Your task to perform on an android device: Open accessibility settings Image 0: 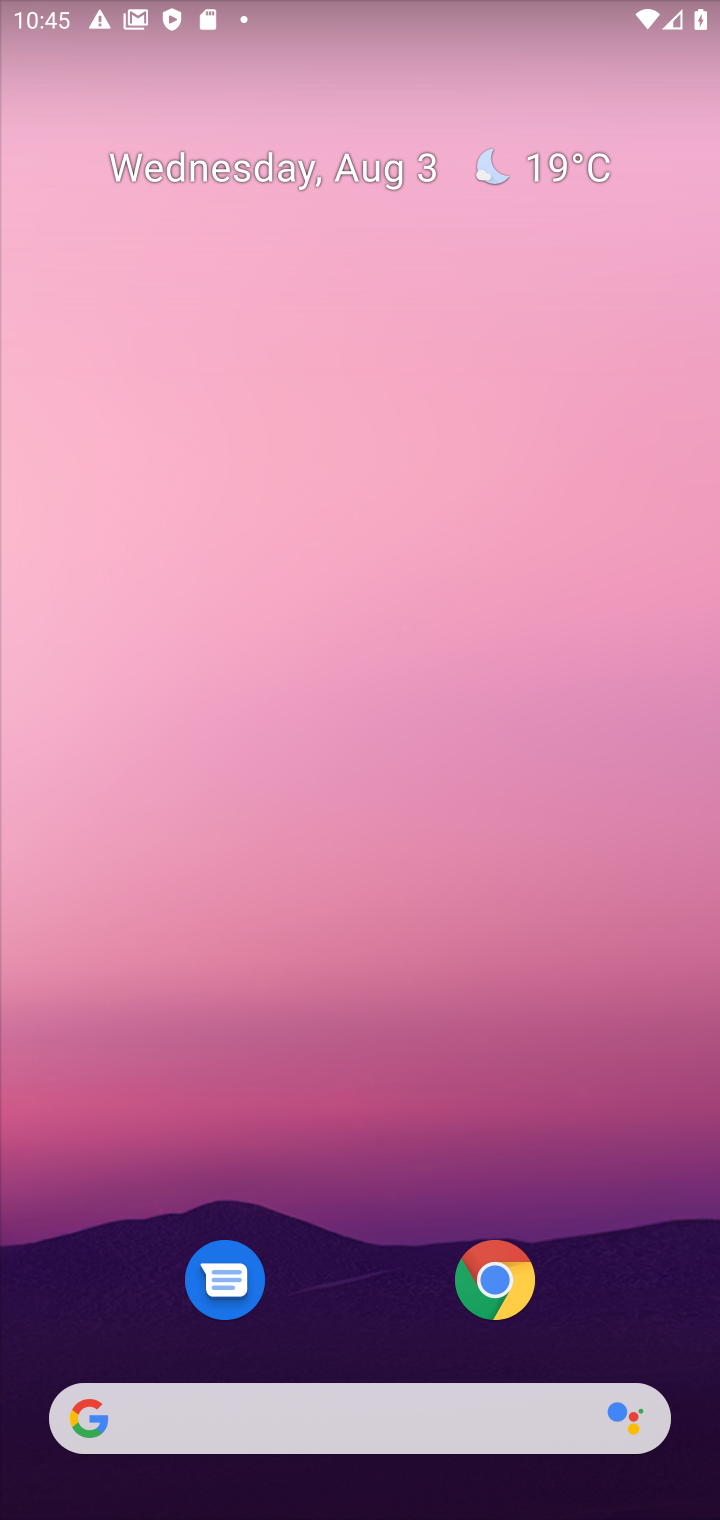
Step 0: drag from (352, 1115) to (473, 255)
Your task to perform on an android device: Open accessibility settings Image 1: 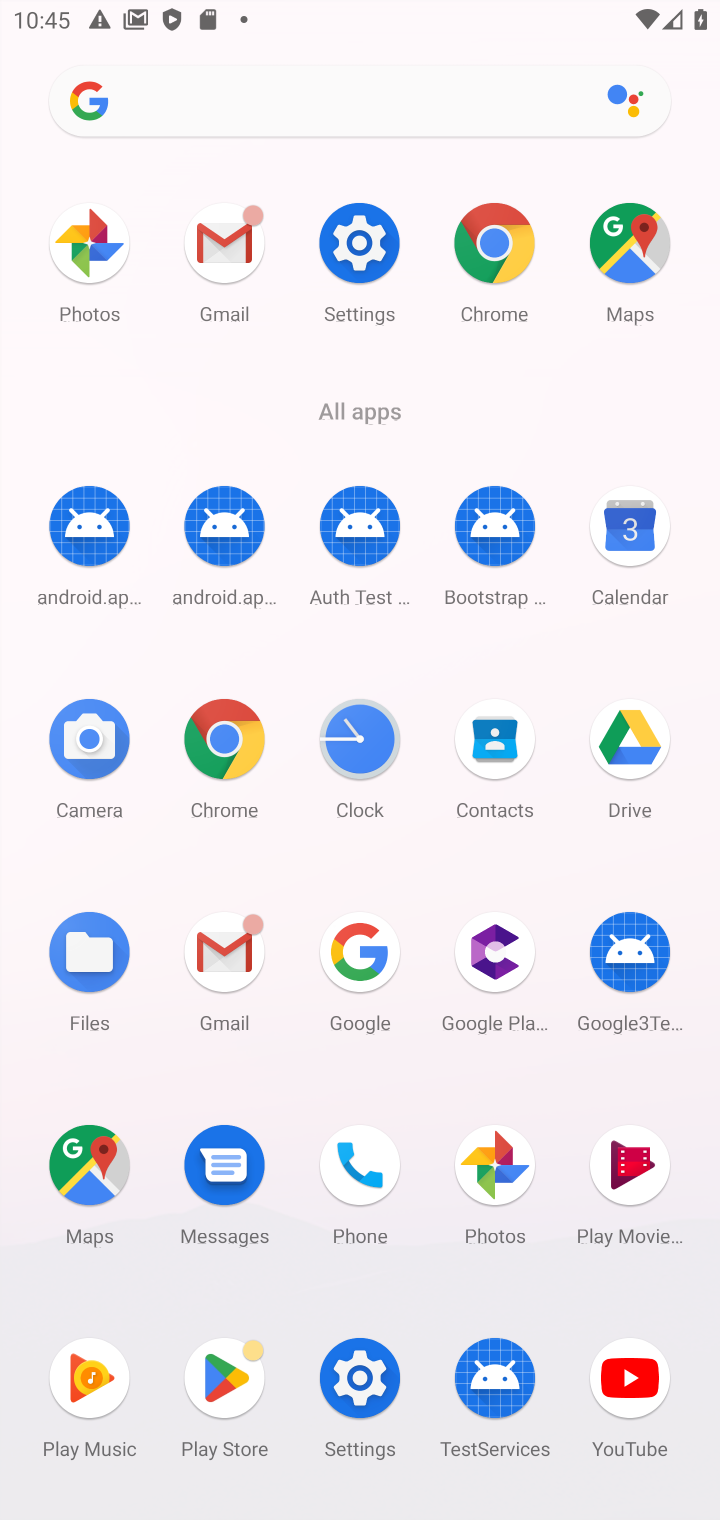
Step 1: click (377, 237)
Your task to perform on an android device: Open accessibility settings Image 2: 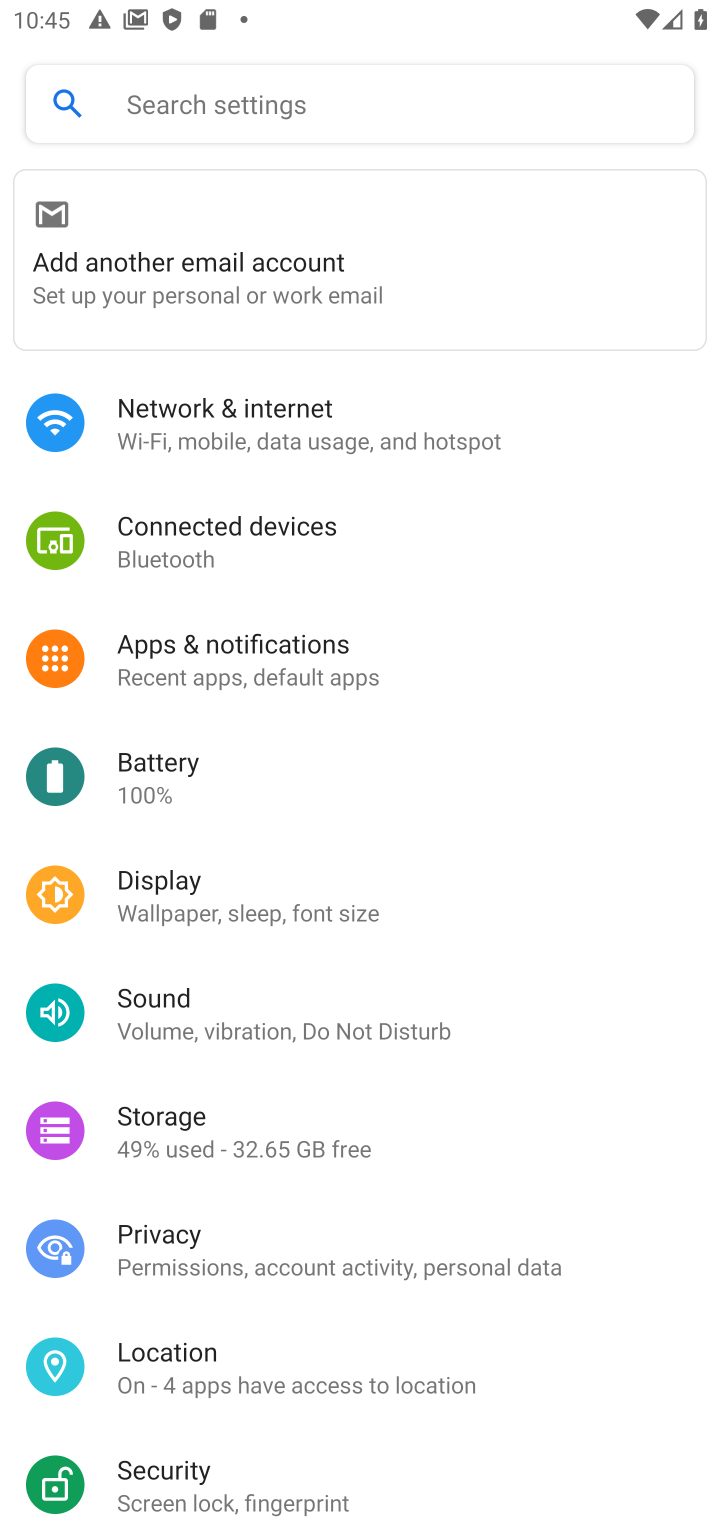
Step 2: drag from (284, 1317) to (195, 562)
Your task to perform on an android device: Open accessibility settings Image 3: 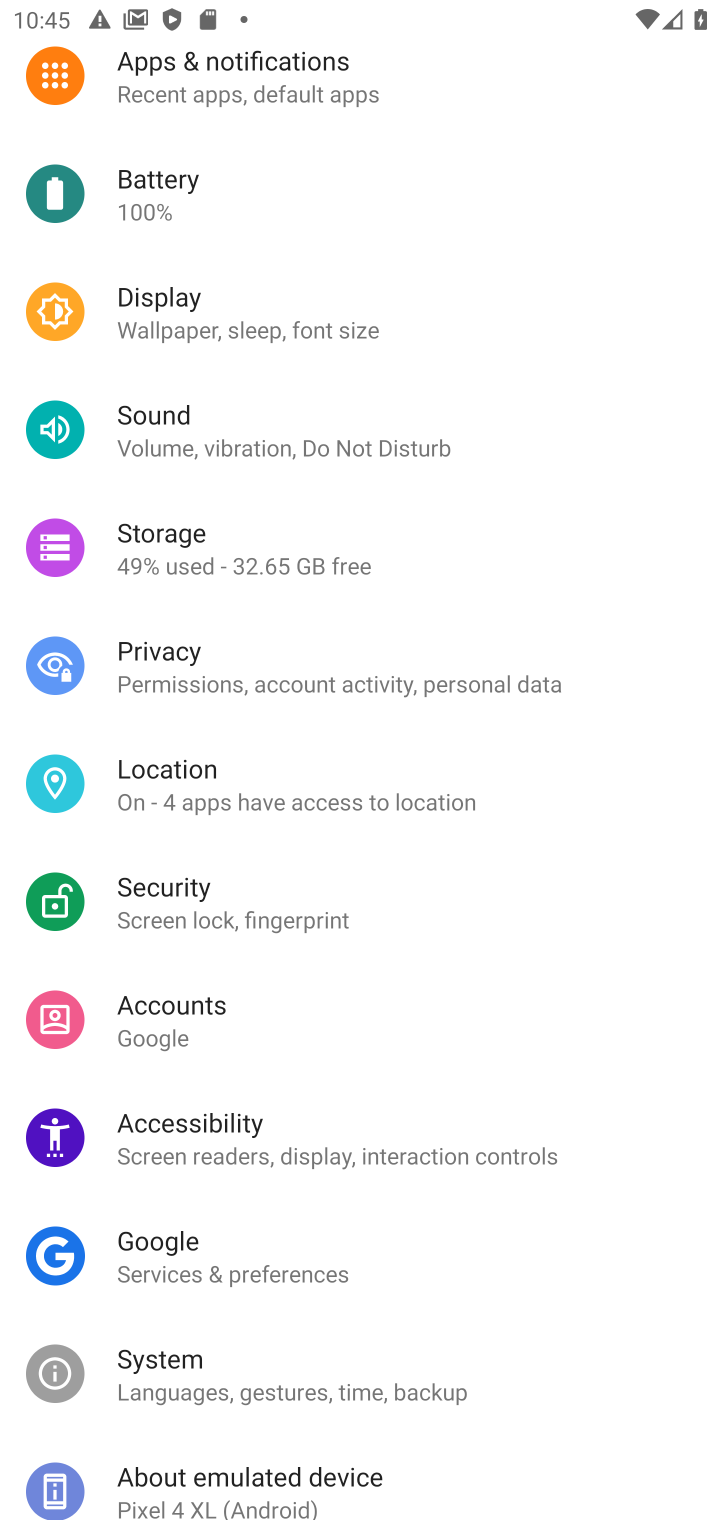
Step 3: click (228, 1135)
Your task to perform on an android device: Open accessibility settings Image 4: 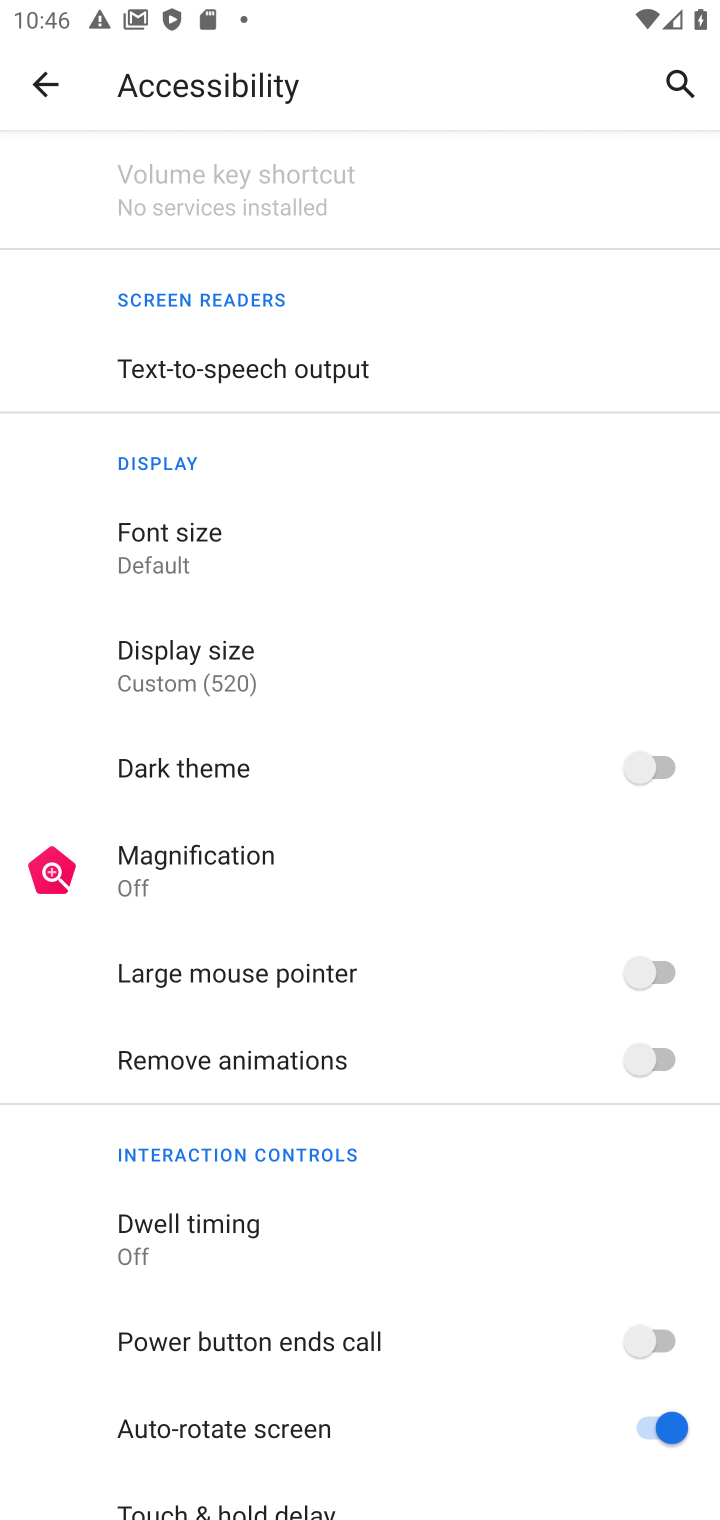
Step 4: task complete